Your task to perform on an android device: Open Amazon Image 0: 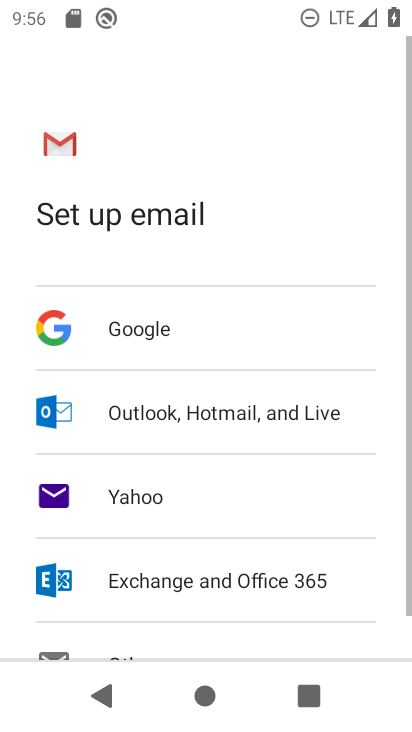
Step 0: press home button
Your task to perform on an android device: Open Amazon Image 1: 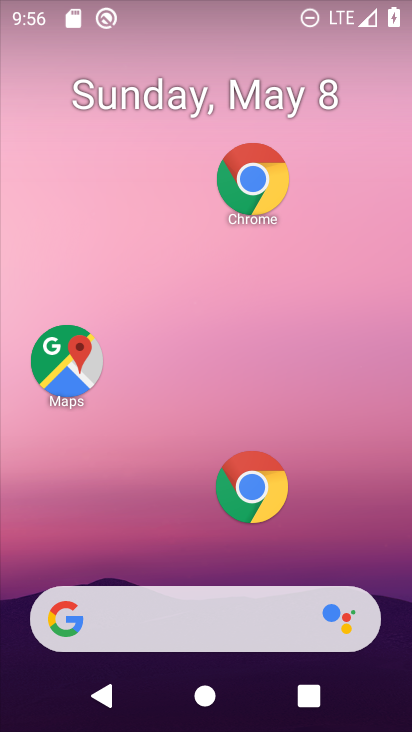
Step 1: click (250, 497)
Your task to perform on an android device: Open Amazon Image 2: 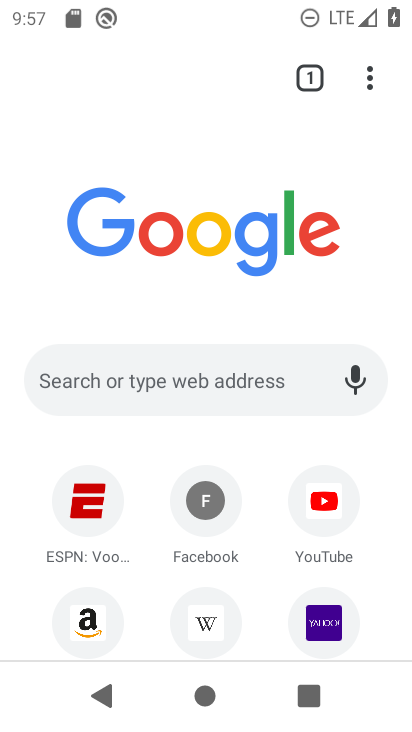
Step 2: click (90, 614)
Your task to perform on an android device: Open Amazon Image 3: 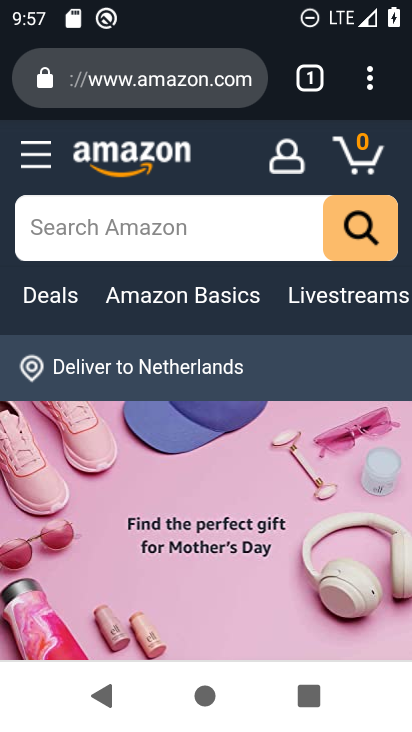
Step 3: task complete